Your task to perform on an android device: Look up "custom art" on Etsy Image 0: 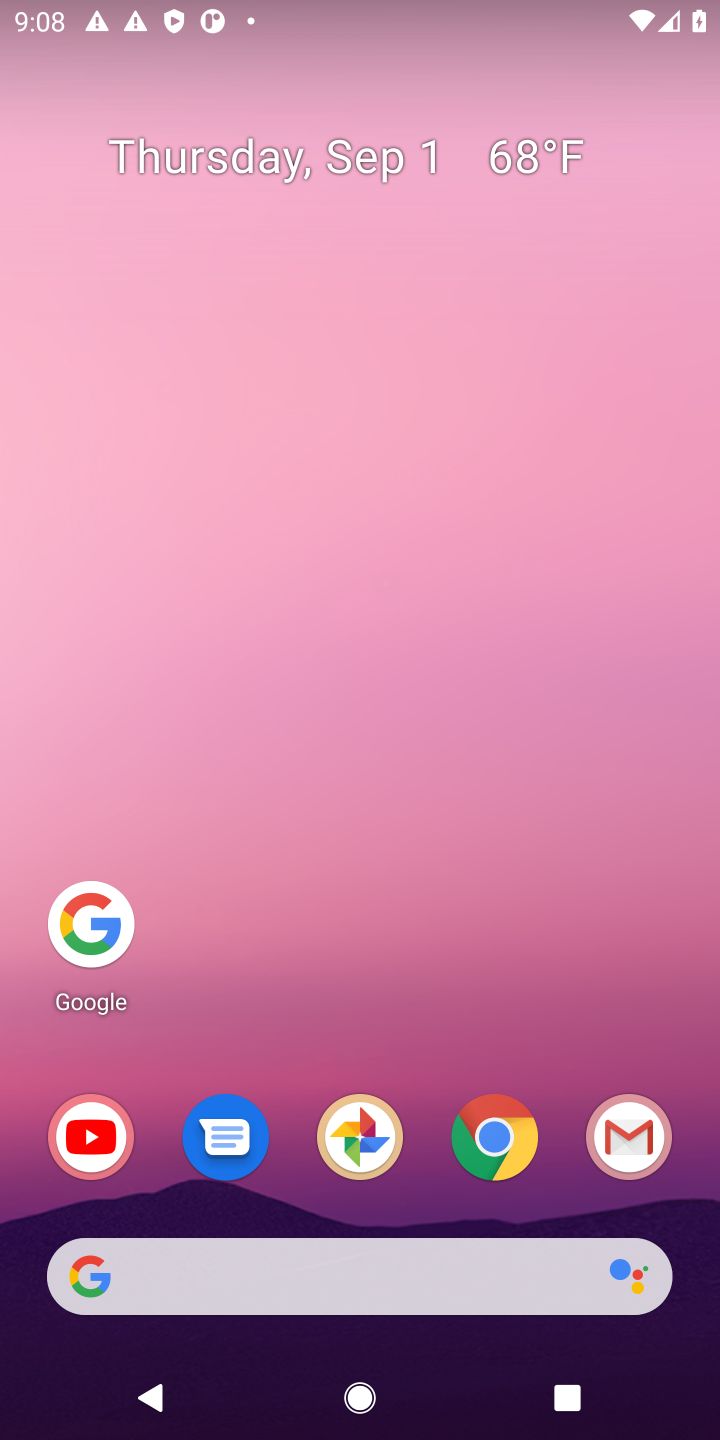
Step 0: click (343, 1264)
Your task to perform on an android device: Look up "custom art" on Etsy Image 1: 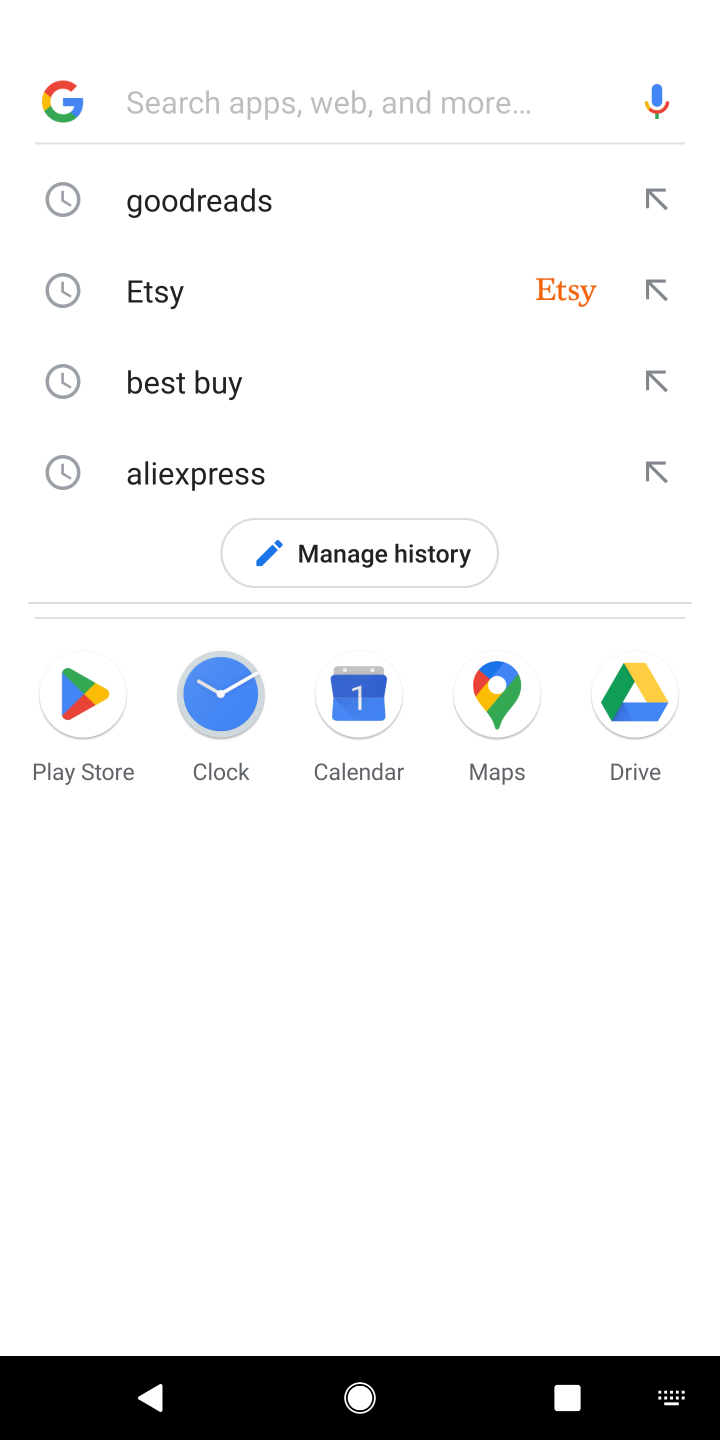
Step 1: type "etsy"
Your task to perform on an android device: Look up "custom art" on Etsy Image 2: 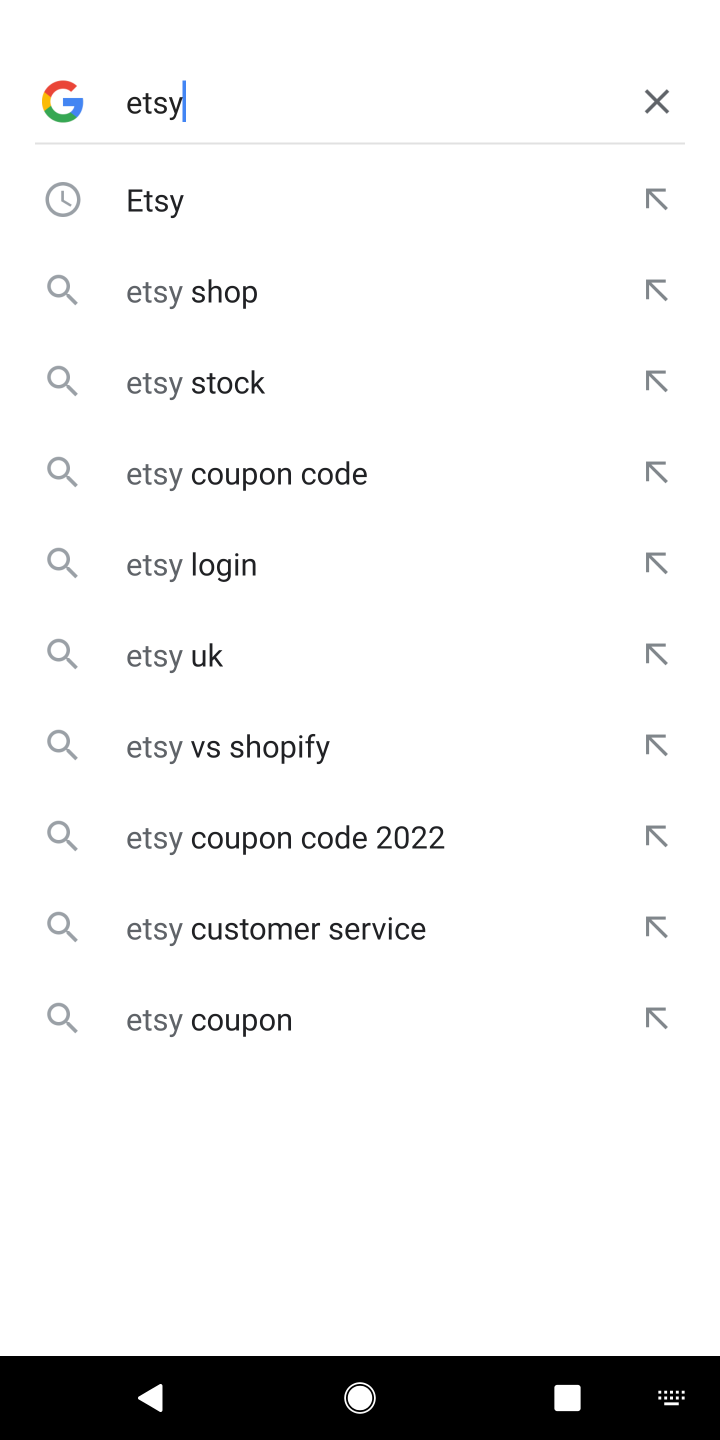
Step 2: click (146, 200)
Your task to perform on an android device: Look up "custom art" on Etsy Image 3: 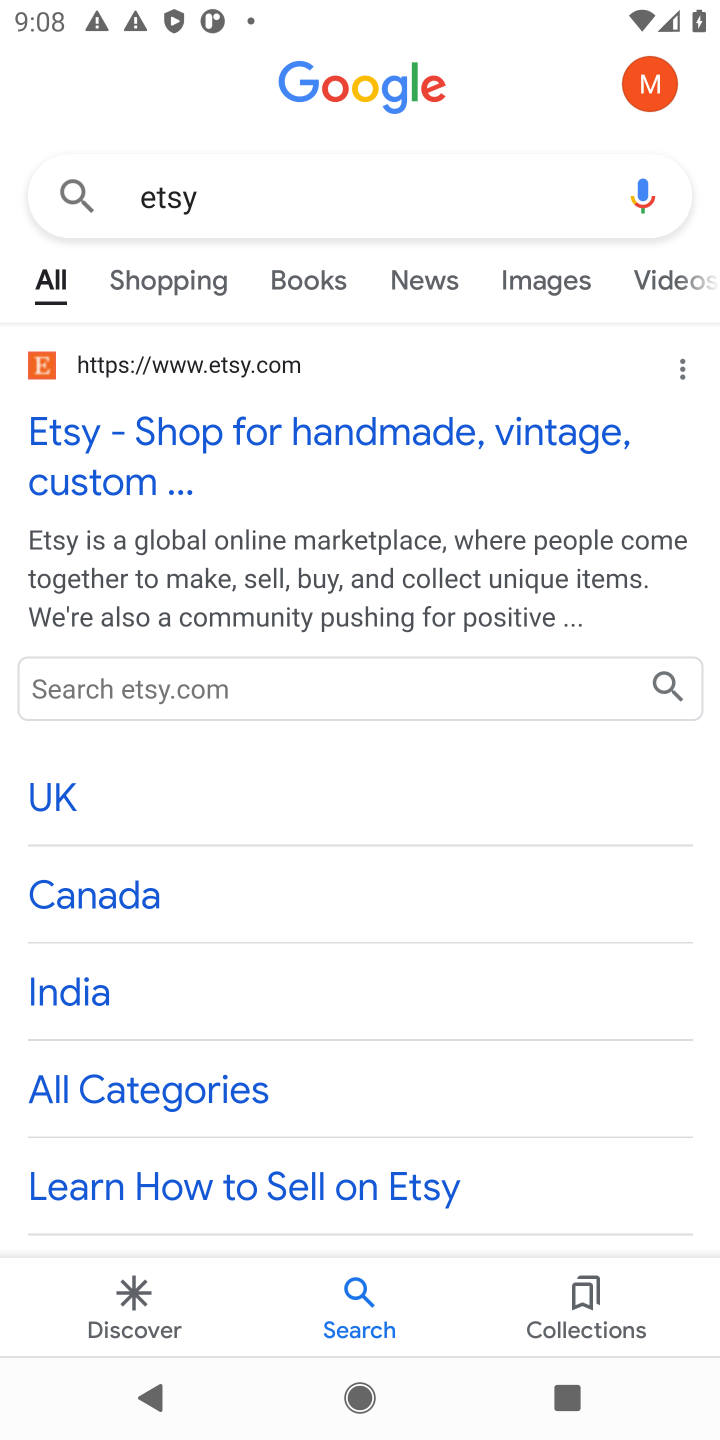
Step 3: click (192, 413)
Your task to perform on an android device: Look up "custom art" on Etsy Image 4: 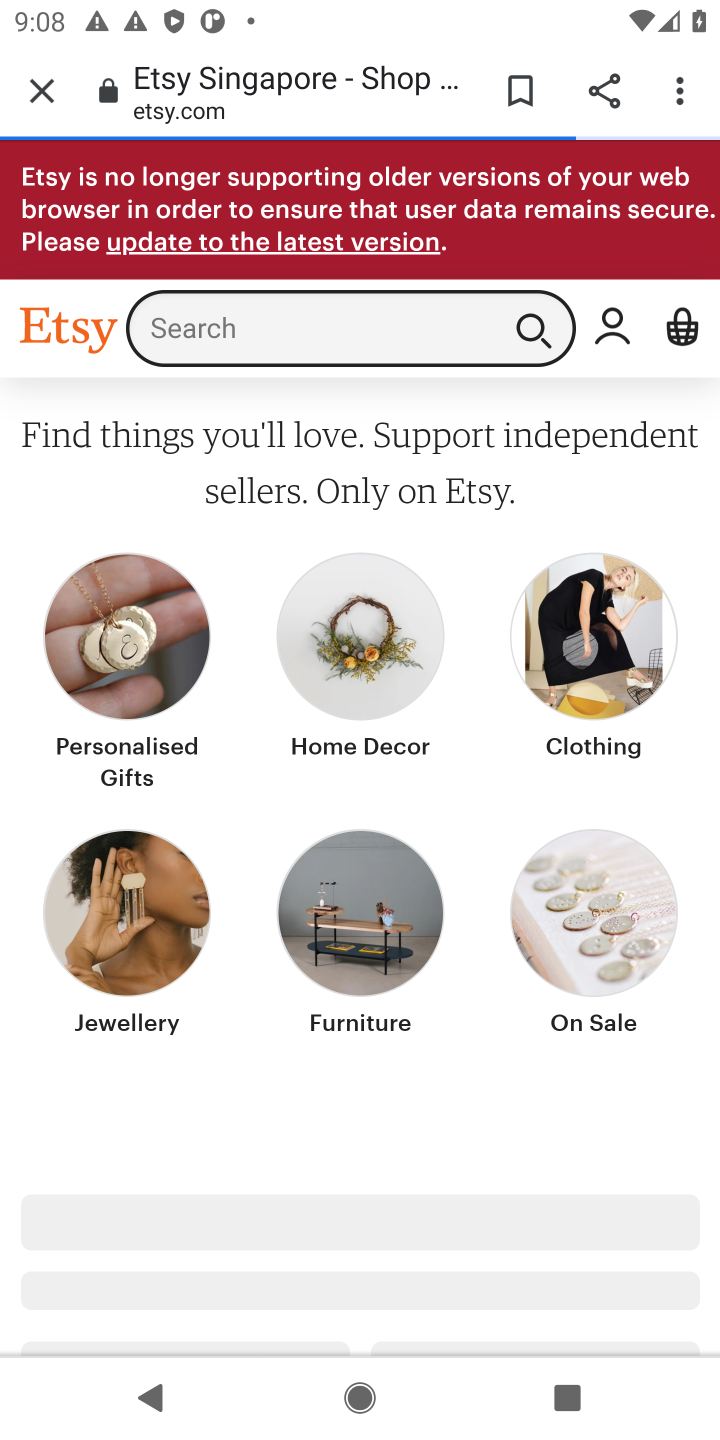
Step 4: click (237, 348)
Your task to perform on an android device: Look up "custom art" on Etsy Image 5: 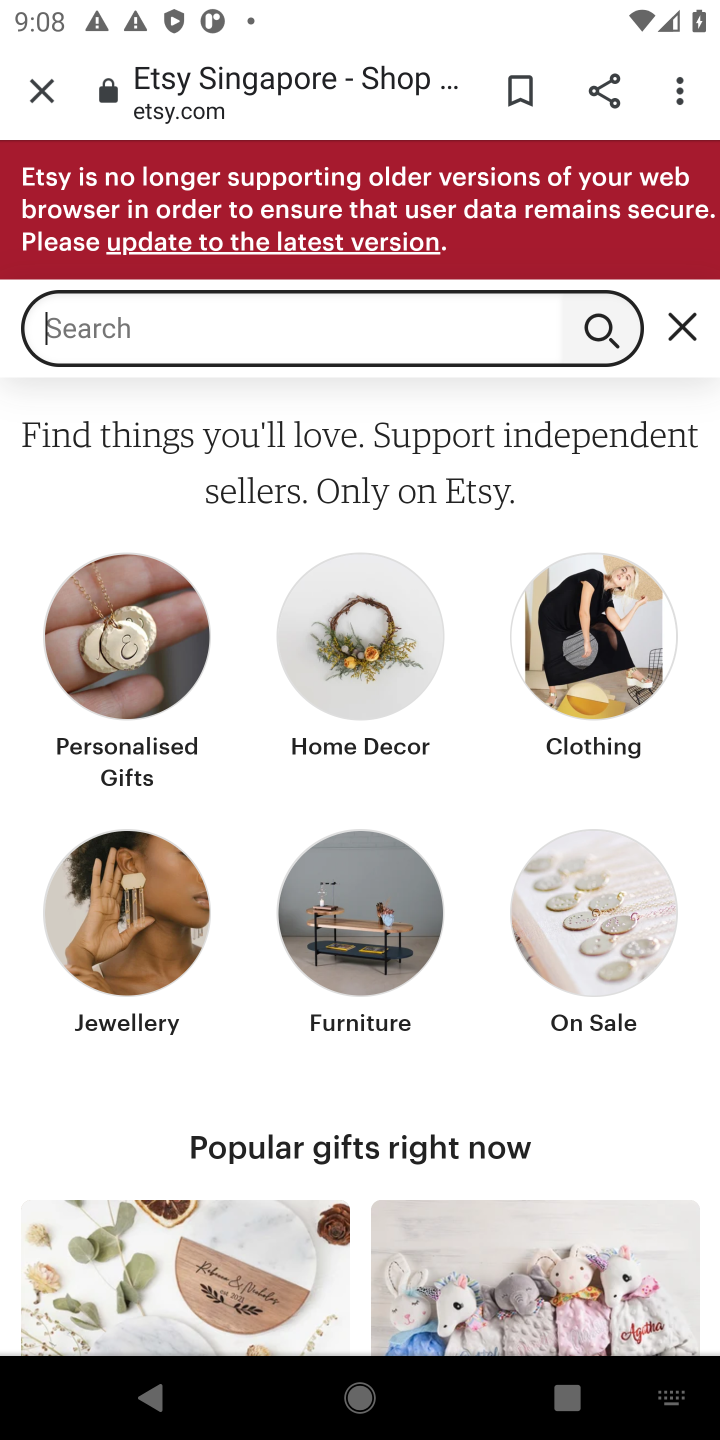
Step 5: type "custom art"
Your task to perform on an android device: Look up "custom art" on Etsy Image 6: 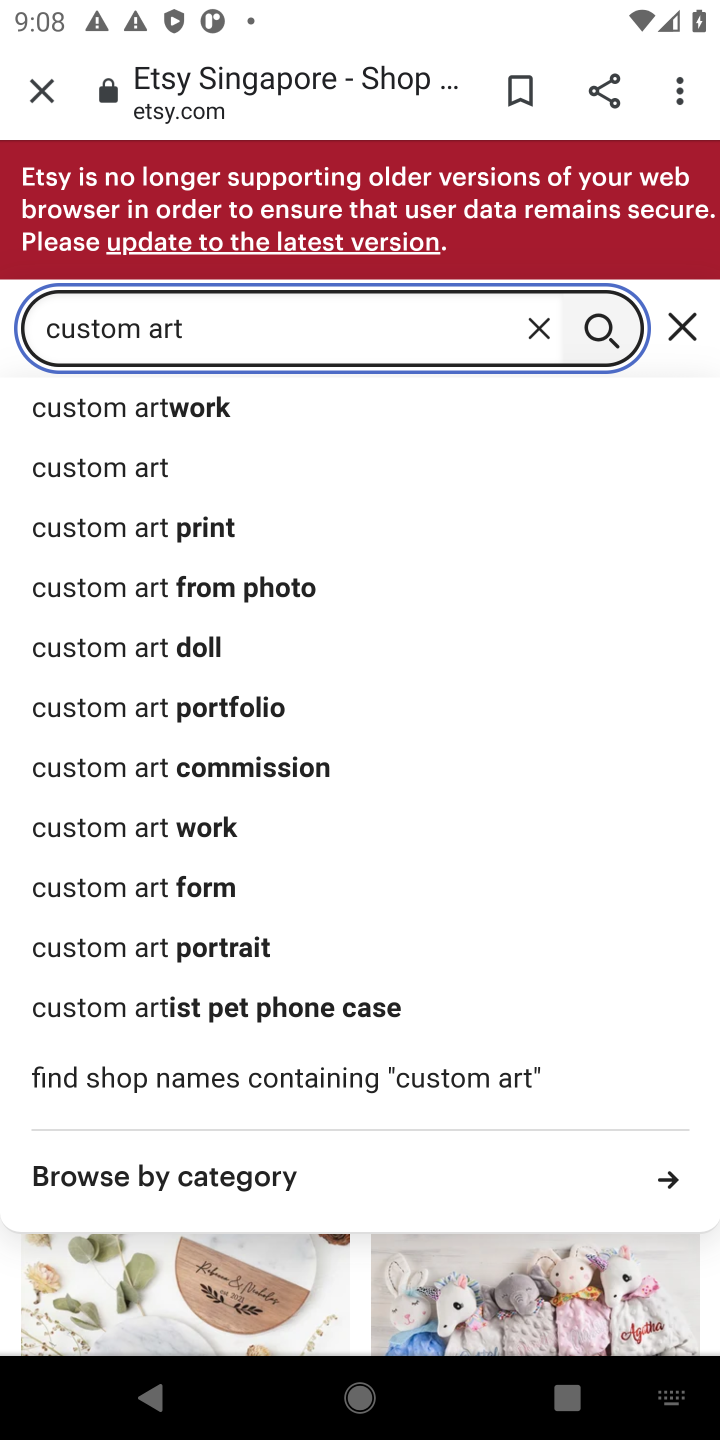
Step 6: click (601, 320)
Your task to perform on an android device: Look up "custom art" on Etsy Image 7: 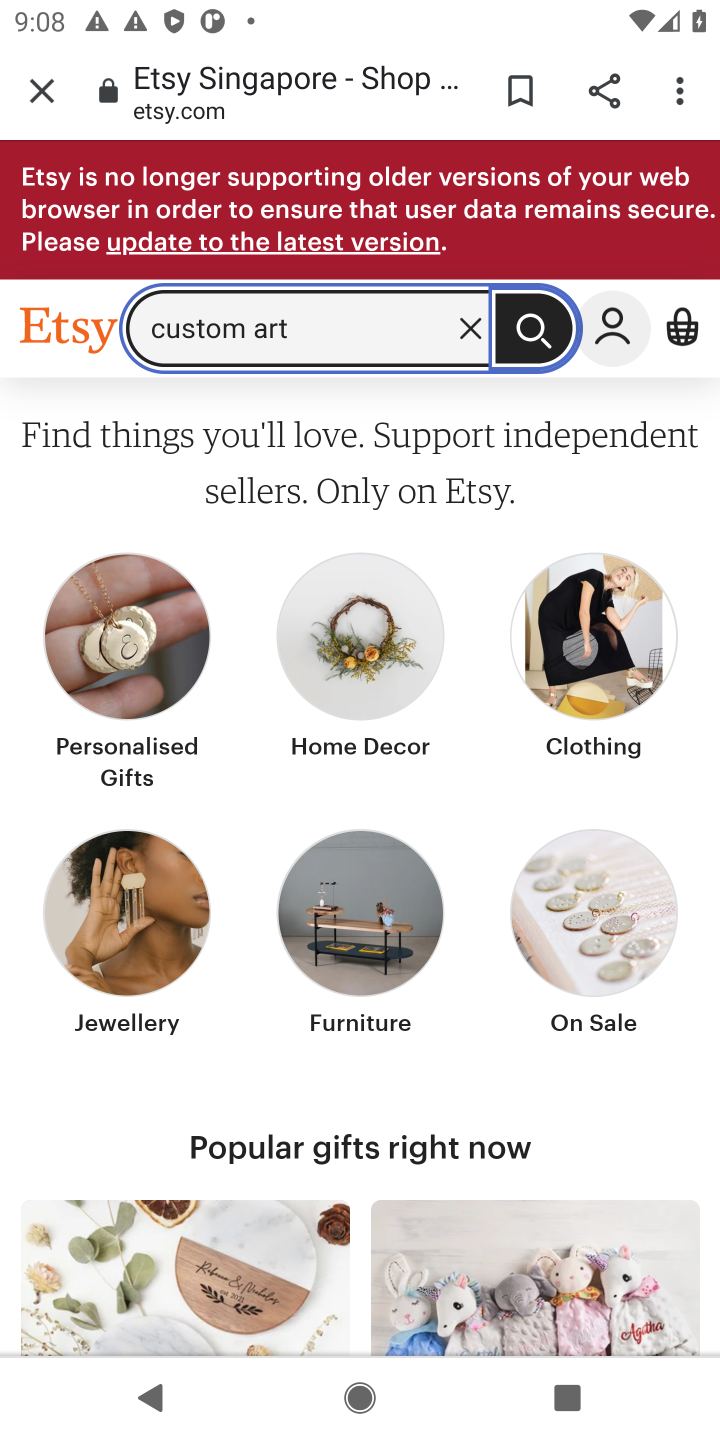
Step 7: click (516, 328)
Your task to perform on an android device: Look up "custom art" on Etsy Image 8: 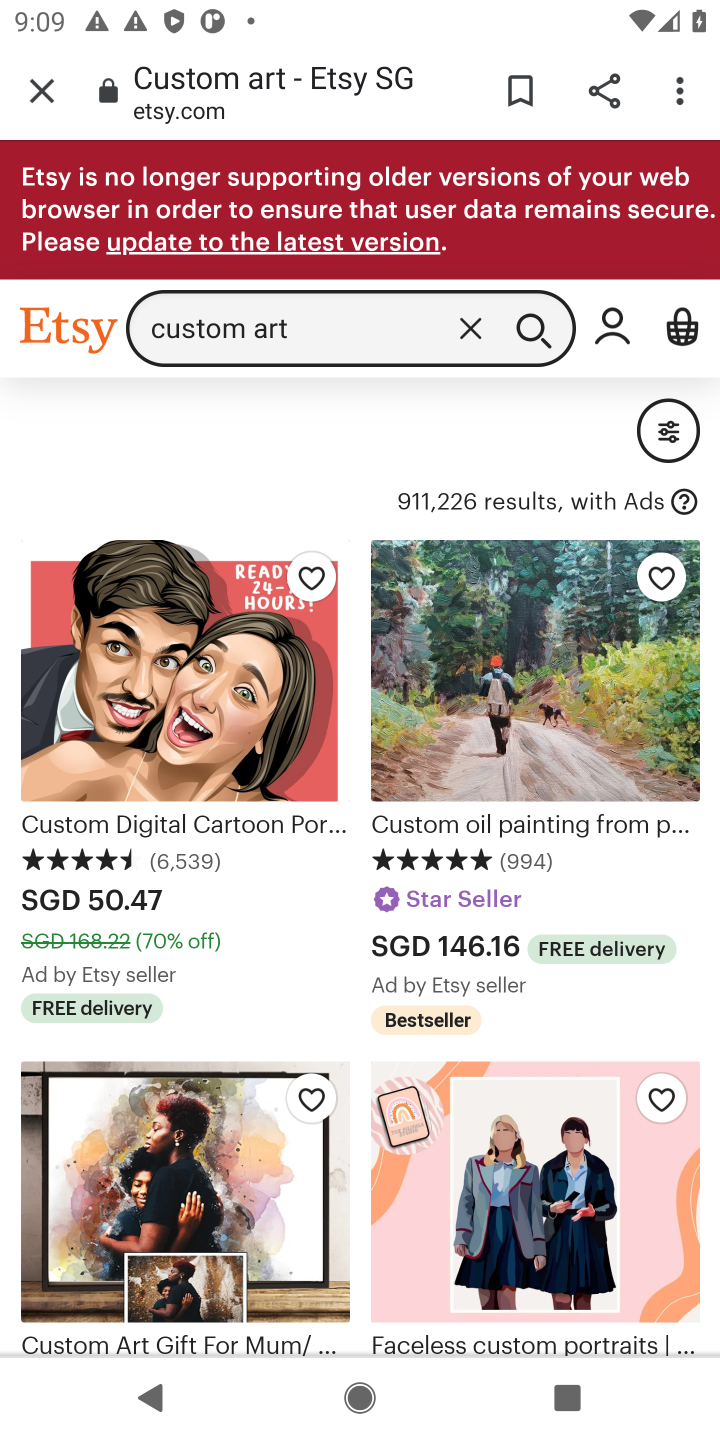
Step 8: task complete